Your task to perform on an android device: toggle notifications settings in the gmail app Image 0: 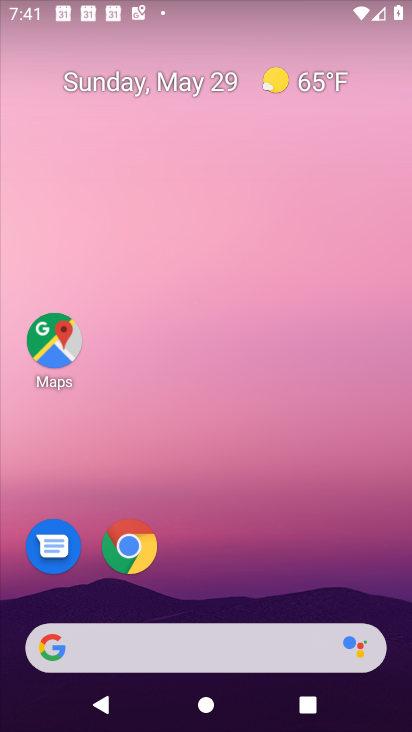
Step 0: drag from (224, 623) to (257, 277)
Your task to perform on an android device: toggle notifications settings in the gmail app Image 1: 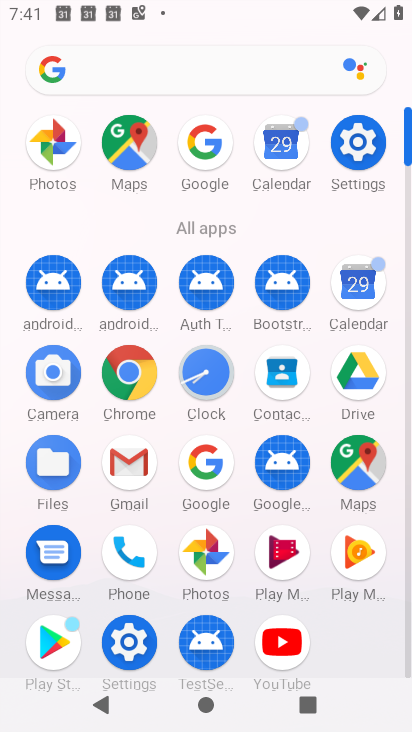
Step 1: click (126, 463)
Your task to perform on an android device: toggle notifications settings in the gmail app Image 2: 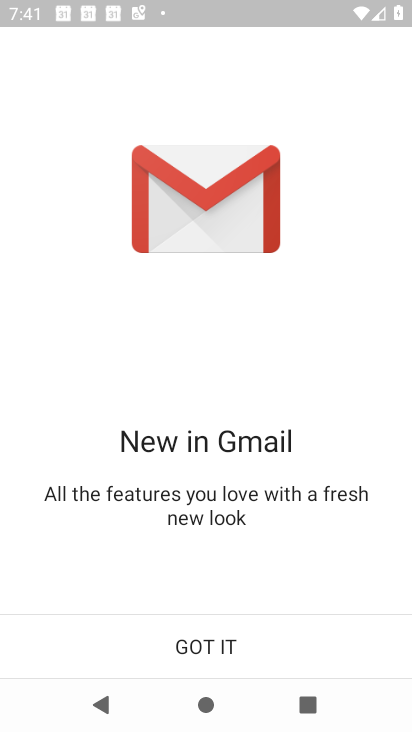
Step 2: click (214, 646)
Your task to perform on an android device: toggle notifications settings in the gmail app Image 3: 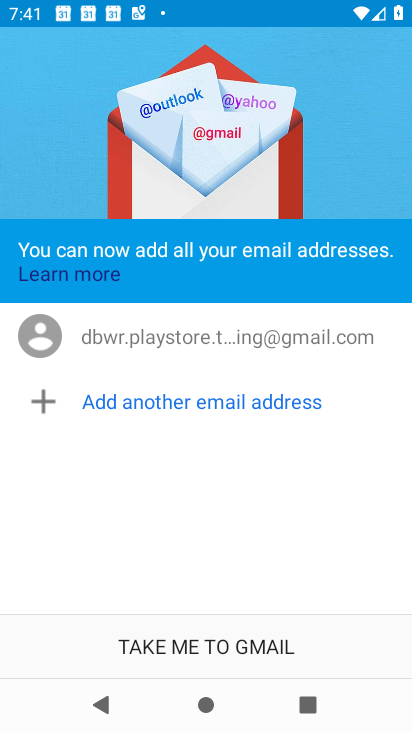
Step 3: click (214, 646)
Your task to perform on an android device: toggle notifications settings in the gmail app Image 4: 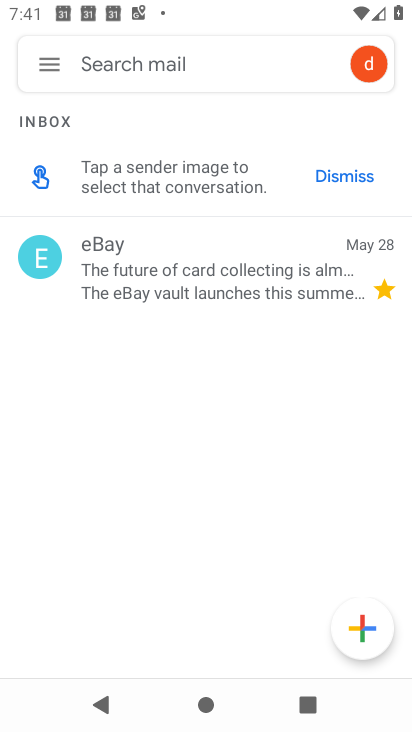
Step 4: click (53, 68)
Your task to perform on an android device: toggle notifications settings in the gmail app Image 5: 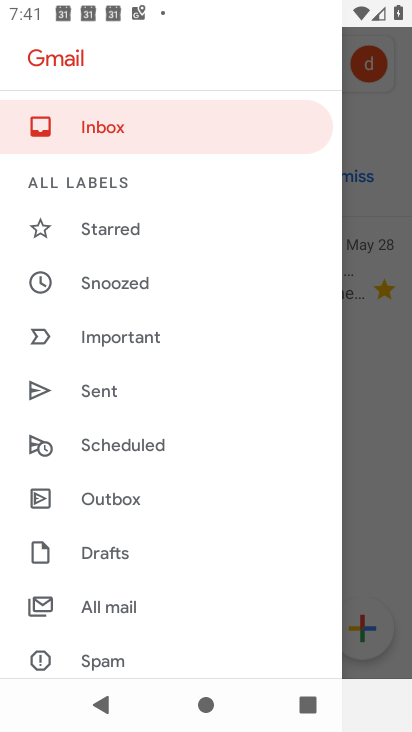
Step 5: drag from (105, 678) to (141, 309)
Your task to perform on an android device: toggle notifications settings in the gmail app Image 6: 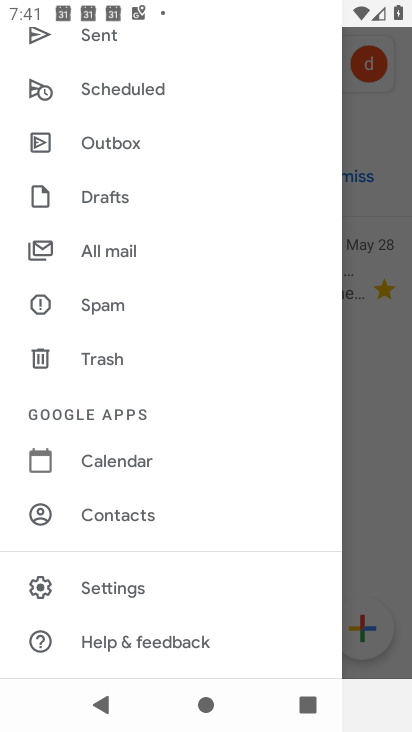
Step 6: click (134, 593)
Your task to perform on an android device: toggle notifications settings in the gmail app Image 7: 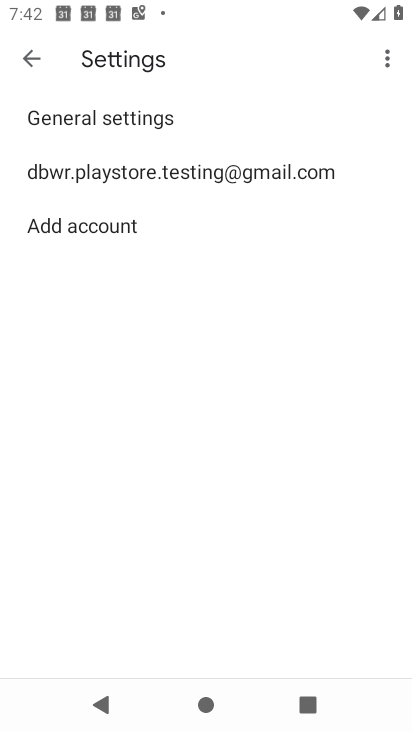
Step 7: click (92, 117)
Your task to perform on an android device: toggle notifications settings in the gmail app Image 8: 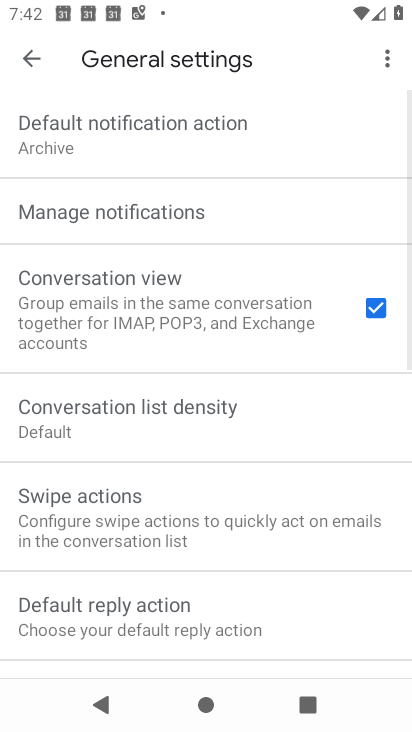
Step 8: click (138, 210)
Your task to perform on an android device: toggle notifications settings in the gmail app Image 9: 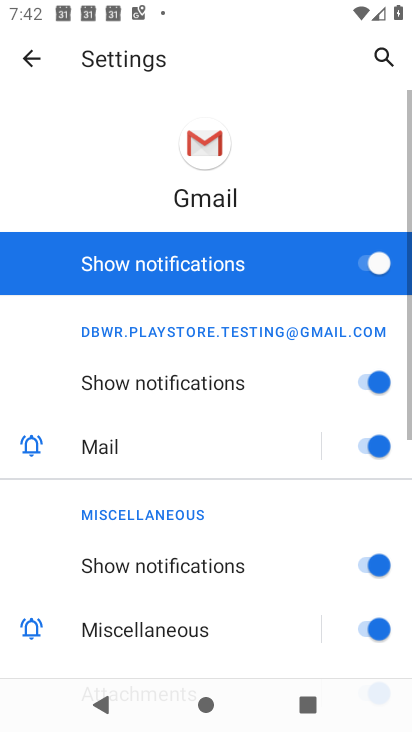
Step 9: click (353, 268)
Your task to perform on an android device: toggle notifications settings in the gmail app Image 10: 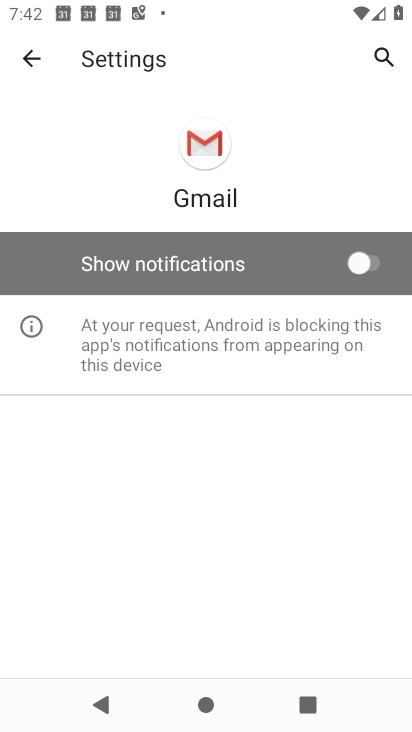
Step 10: task complete